Your task to perform on an android device: Open Google Maps and go to "Timeline" Image 0: 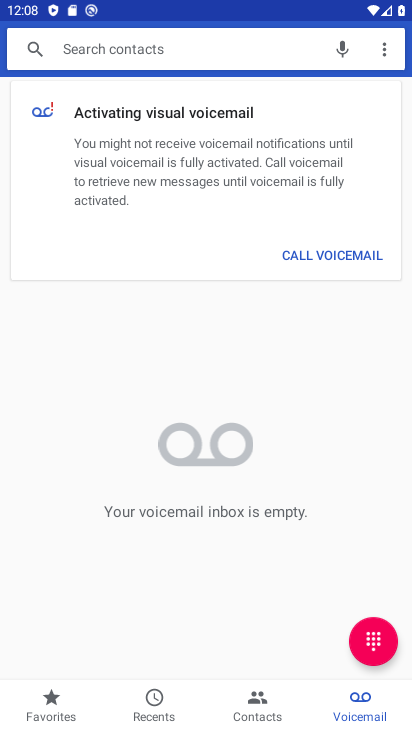
Step 0: press home button
Your task to perform on an android device: Open Google Maps and go to "Timeline" Image 1: 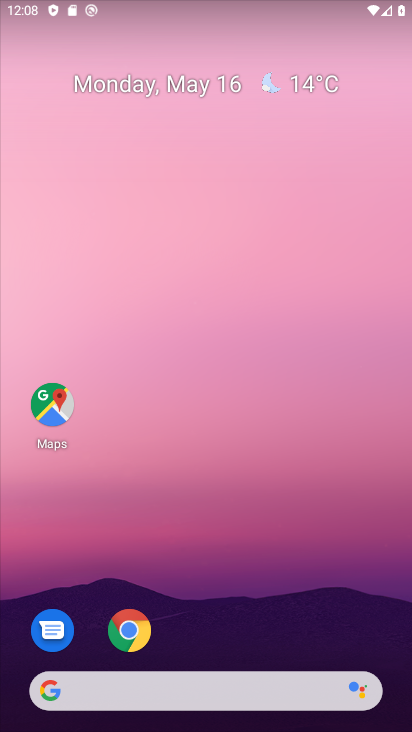
Step 1: click (58, 416)
Your task to perform on an android device: Open Google Maps and go to "Timeline" Image 2: 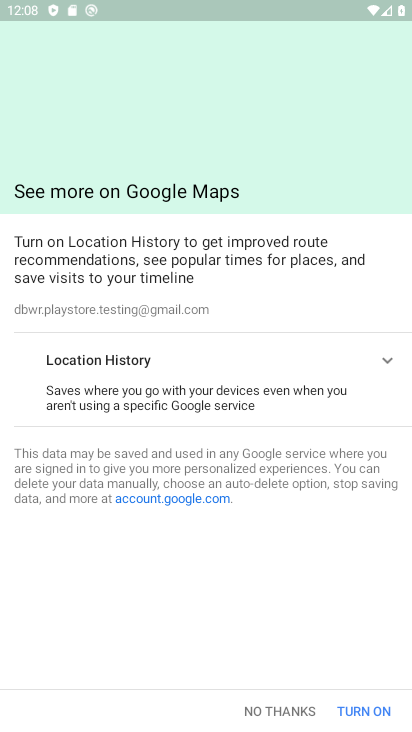
Step 2: click (28, 52)
Your task to perform on an android device: Open Google Maps and go to "Timeline" Image 3: 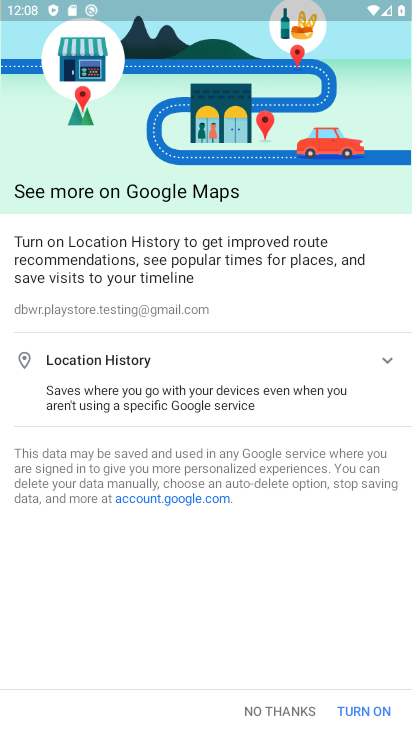
Step 3: click (302, 714)
Your task to perform on an android device: Open Google Maps and go to "Timeline" Image 4: 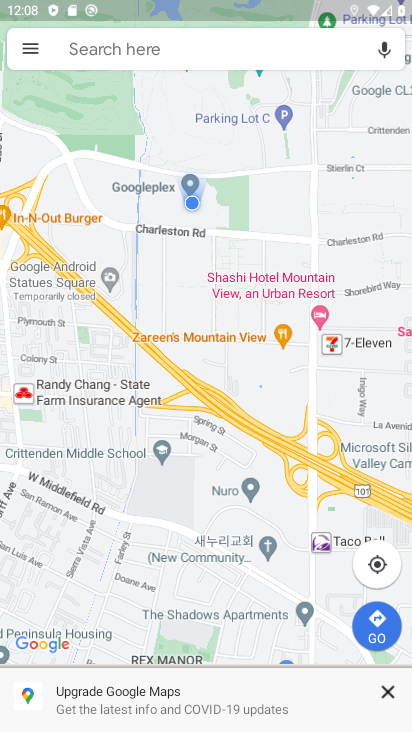
Step 4: click (32, 57)
Your task to perform on an android device: Open Google Maps and go to "Timeline" Image 5: 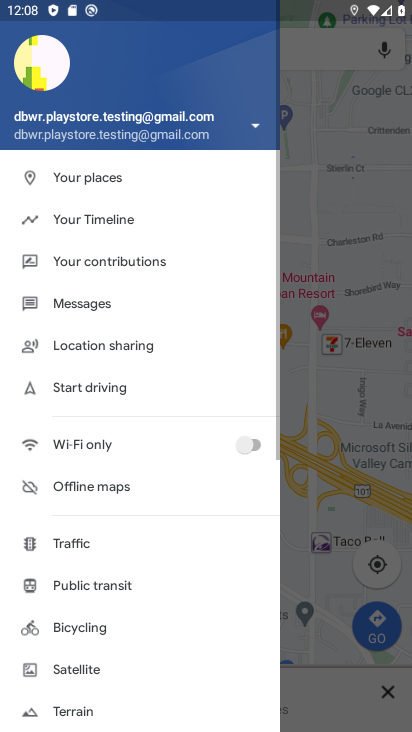
Step 5: click (101, 208)
Your task to perform on an android device: Open Google Maps and go to "Timeline" Image 6: 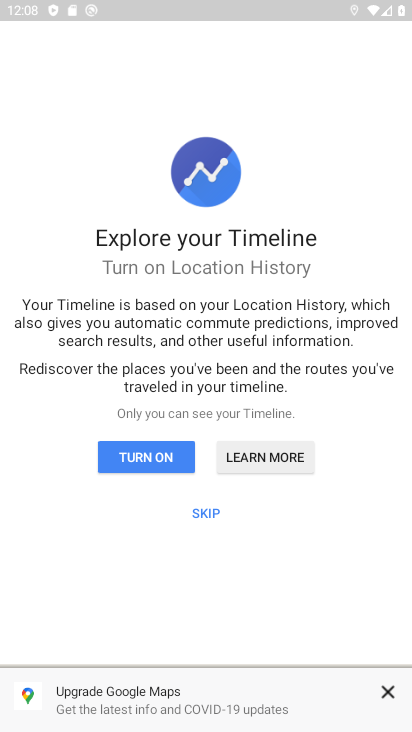
Step 6: click (207, 513)
Your task to perform on an android device: Open Google Maps and go to "Timeline" Image 7: 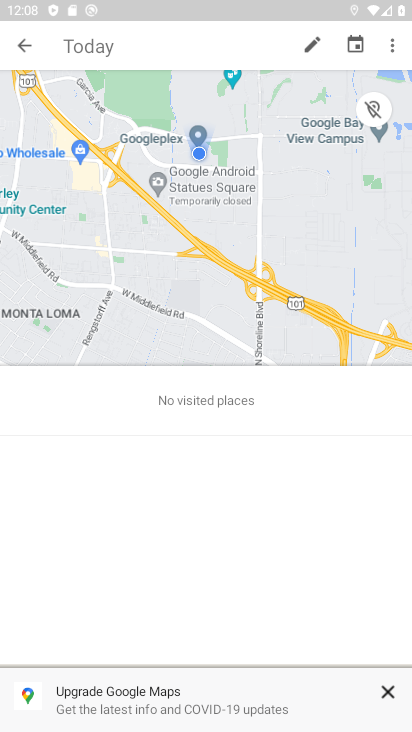
Step 7: task complete